Your task to perform on an android device: turn off picture-in-picture Image 0: 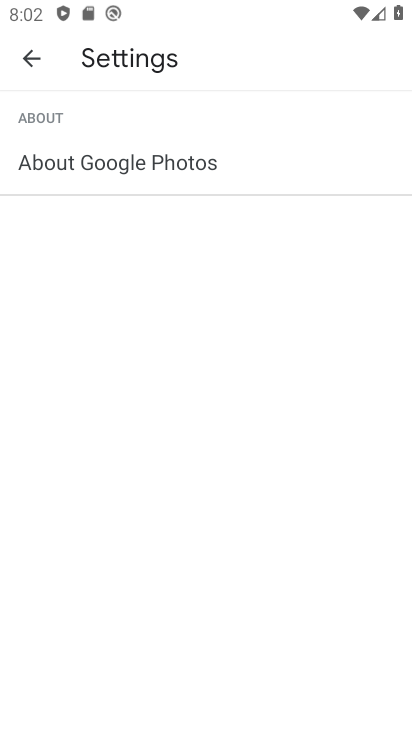
Step 0: press back button
Your task to perform on an android device: turn off picture-in-picture Image 1: 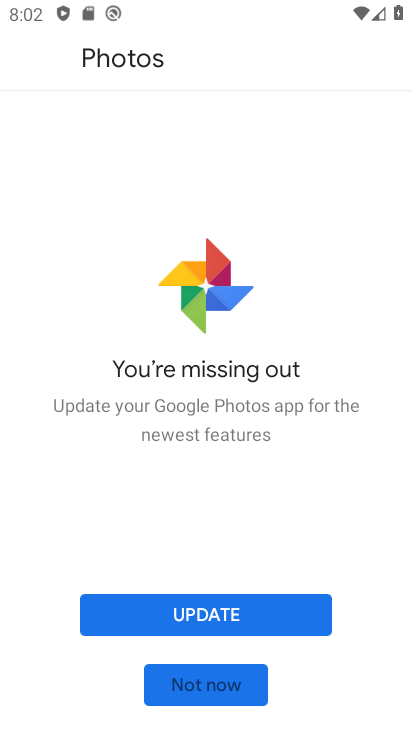
Step 1: click (196, 680)
Your task to perform on an android device: turn off picture-in-picture Image 2: 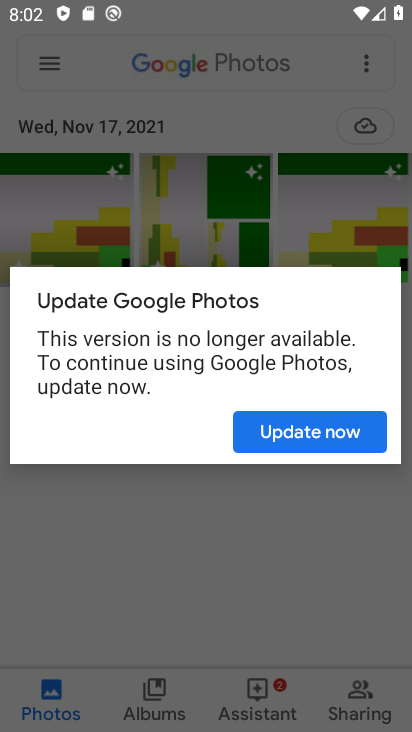
Step 2: press back button
Your task to perform on an android device: turn off picture-in-picture Image 3: 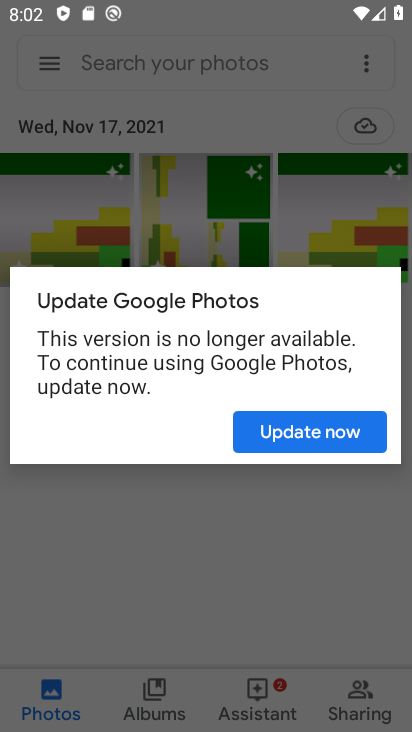
Step 3: press home button
Your task to perform on an android device: turn off picture-in-picture Image 4: 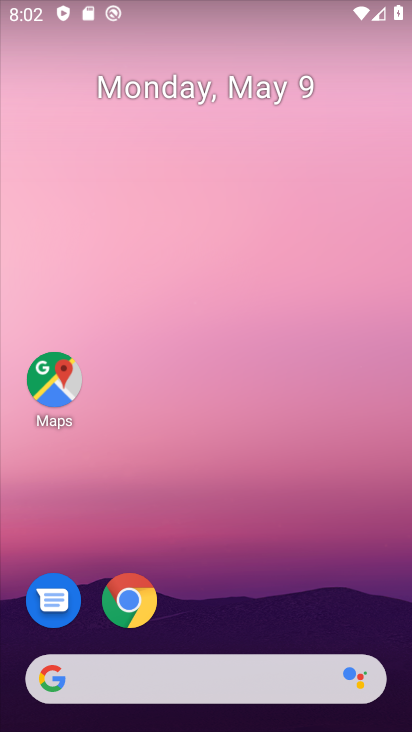
Step 4: drag from (191, 559) to (189, 40)
Your task to perform on an android device: turn off picture-in-picture Image 5: 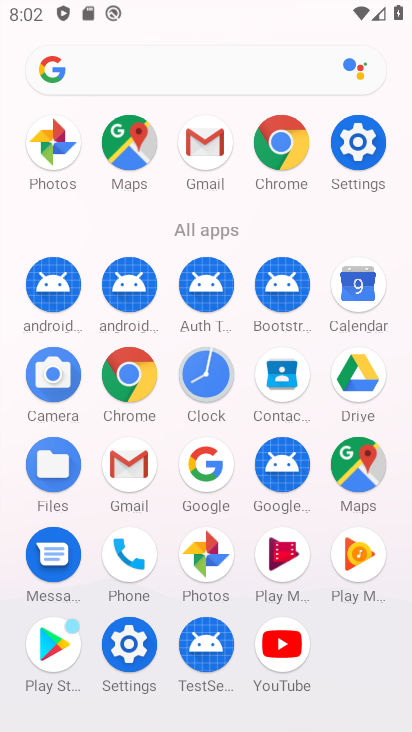
Step 5: drag from (11, 547) to (15, 303)
Your task to perform on an android device: turn off picture-in-picture Image 6: 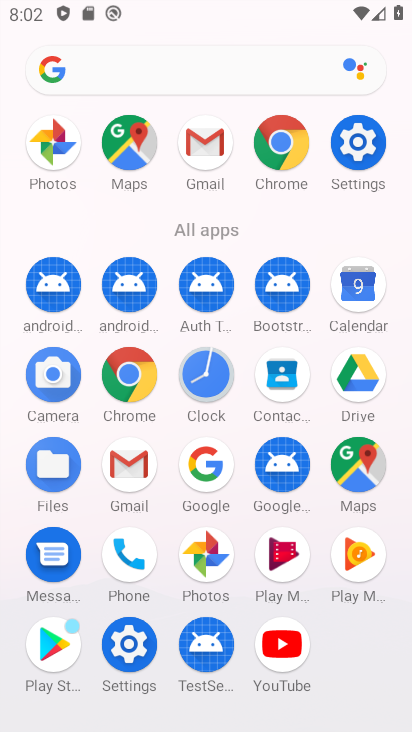
Step 6: click (358, 140)
Your task to perform on an android device: turn off picture-in-picture Image 7: 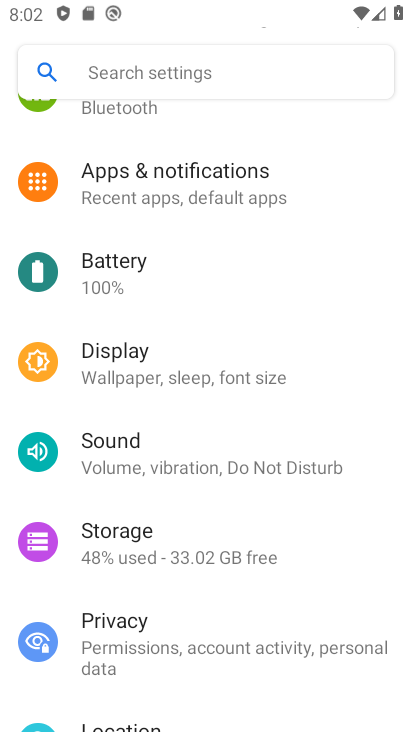
Step 7: click (252, 173)
Your task to perform on an android device: turn off picture-in-picture Image 8: 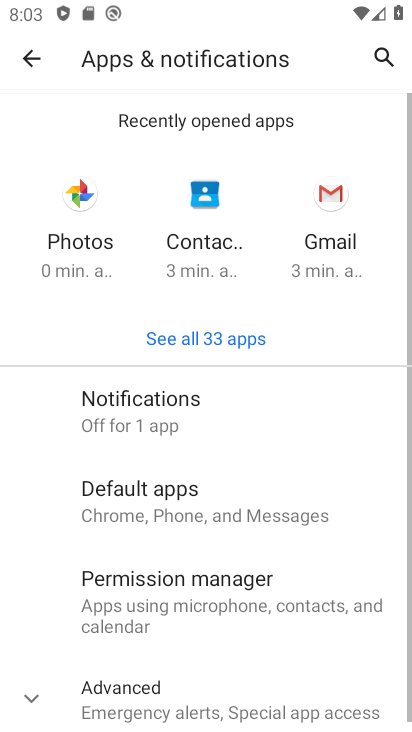
Step 8: click (26, 690)
Your task to perform on an android device: turn off picture-in-picture Image 9: 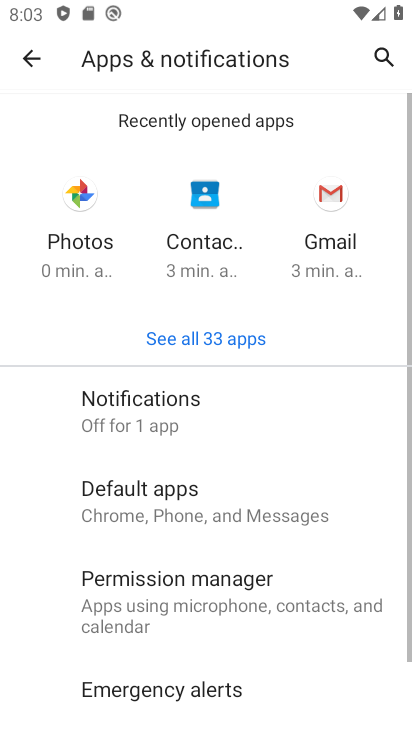
Step 9: drag from (224, 669) to (248, 172)
Your task to perform on an android device: turn off picture-in-picture Image 10: 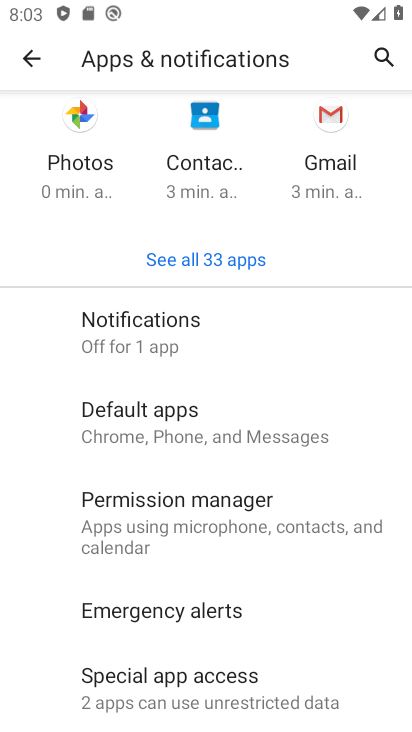
Step 10: click (184, 703)
Your task to perform on an android device: turn off picture-in-picture Image 11: 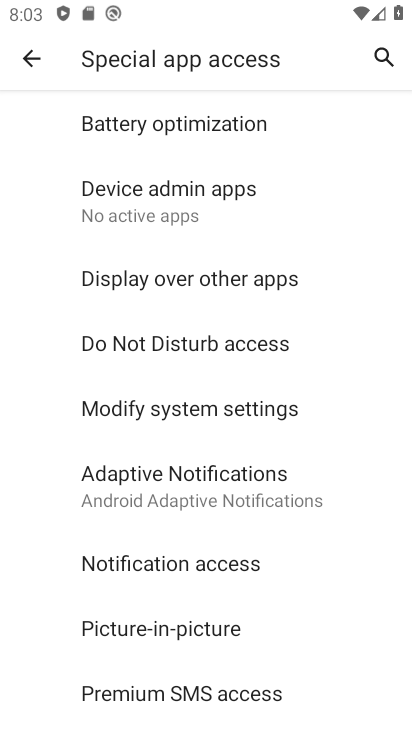
Step 11: click (223, 629)
Your task to perform on an android device: turn off picture-in-picture Image 12: 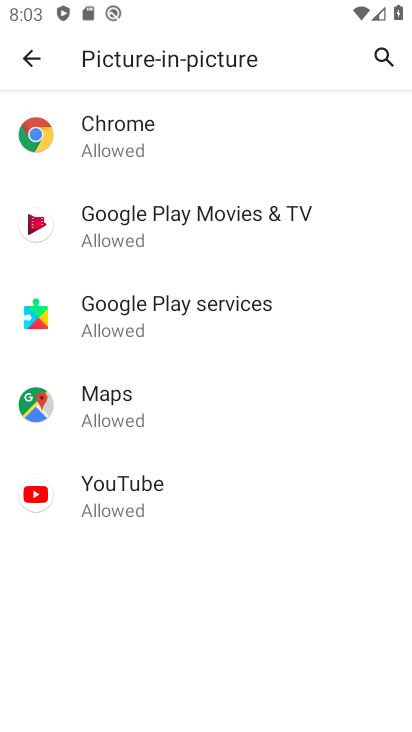
Step 12: click (173, 144)
Your task to perform on an android device: turn off picture-in-picture Image 13: 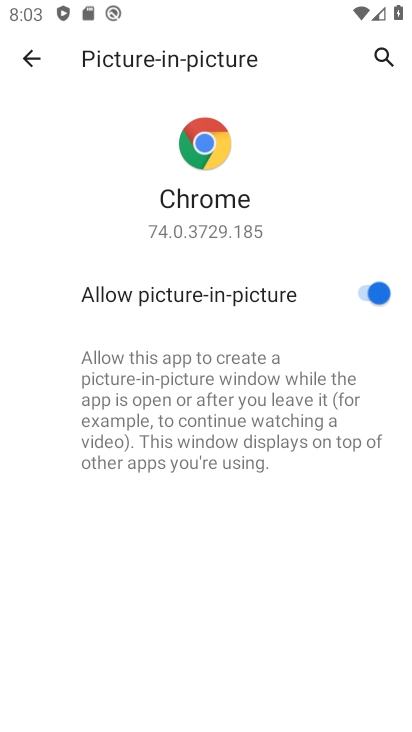
Step 13: click (359, 291)
Your task to perform on an android device: turn off picture-in-picture Image 14: 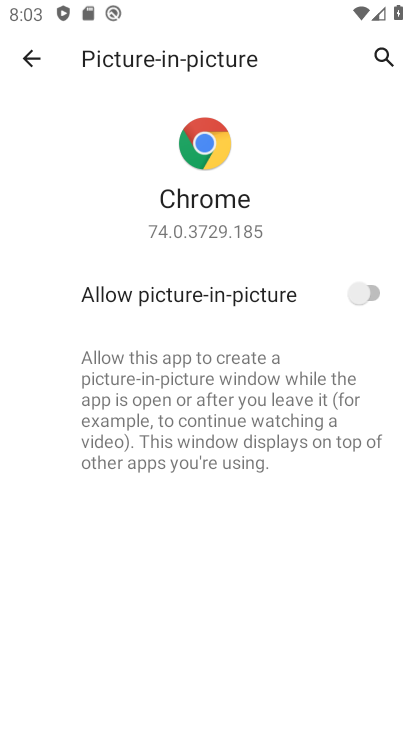
Step 14: click (37, 54)
Your task to perform on an android device: turn off picture-in-picture Image 15: 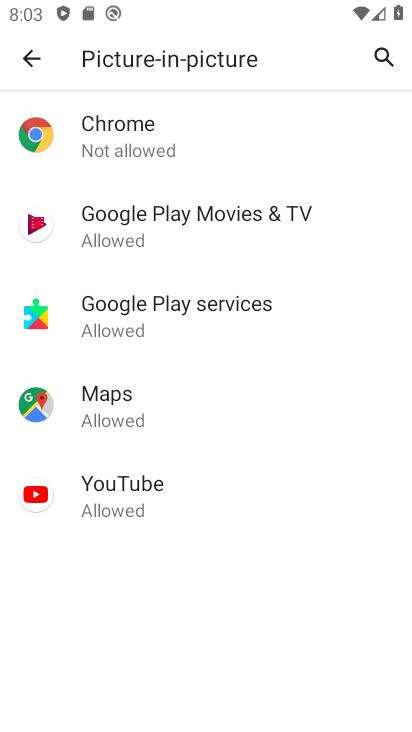
Step 15: click (149, 234)
Your task to perform on an android device: turn off picture-in-picture Image 16: 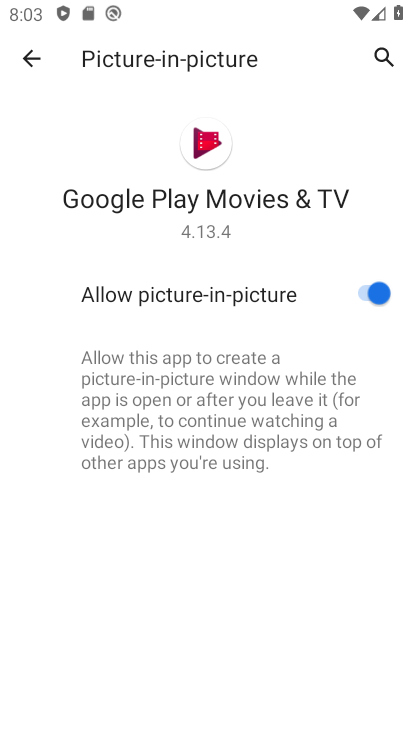
Step 16: click (366, 291)
Your task to perform on an android device: turn off picture-in-picture Image 17: 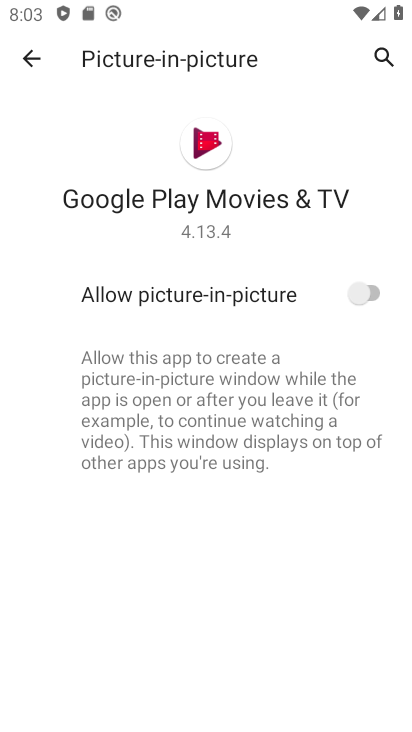
Step 17: click (32, 53)
Your task to perform on an android device: turn off picture-in-picture Image 18: 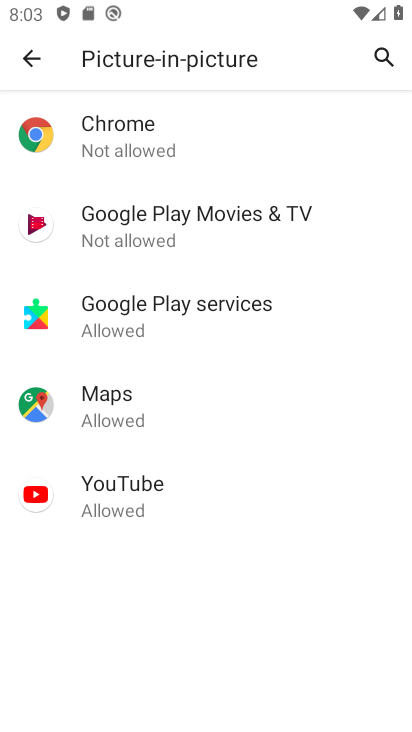
Step 18: click (148, 322)
Your task to perform on an android device: turn off picture-in-picture Image 19: 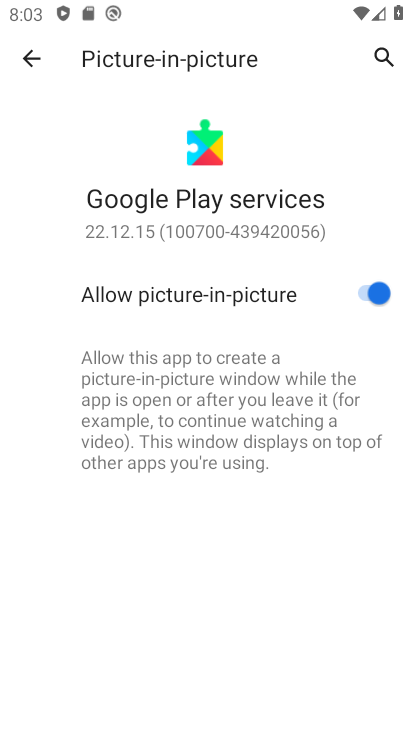
Step 19: click (373, 294)
Your task to perform on an android device: turn off picture-in-picture Image 20: 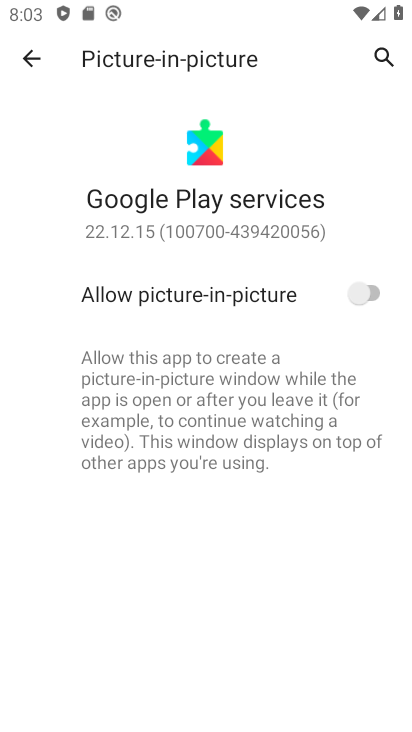
Step 20: click (29, 54)
Your task to perform on an android device: turn off picture-in-picture Image 21: 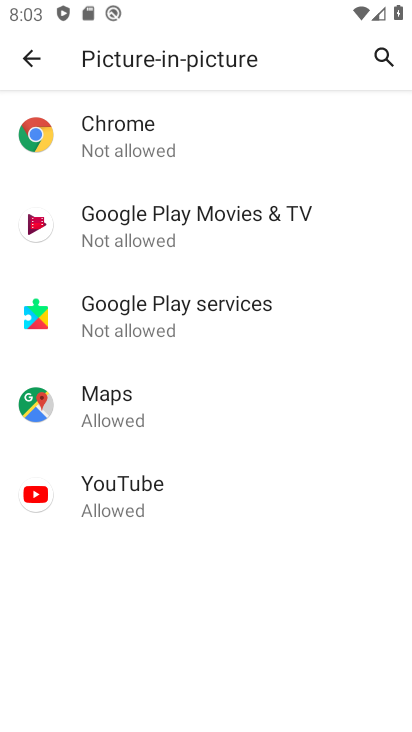
Step 21: click (135, 406)
Your task to perform on an android device: turn off picture-in-picture Image 22: 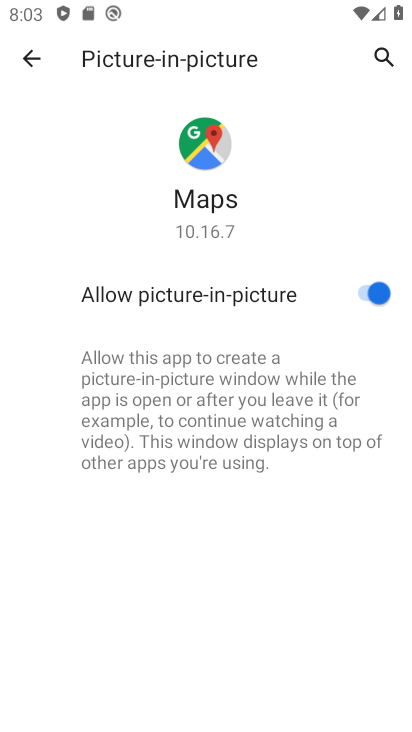
Step 22: click (360, 293)
Your task to perform on an android device: turn off picture-in-picture Image 23: 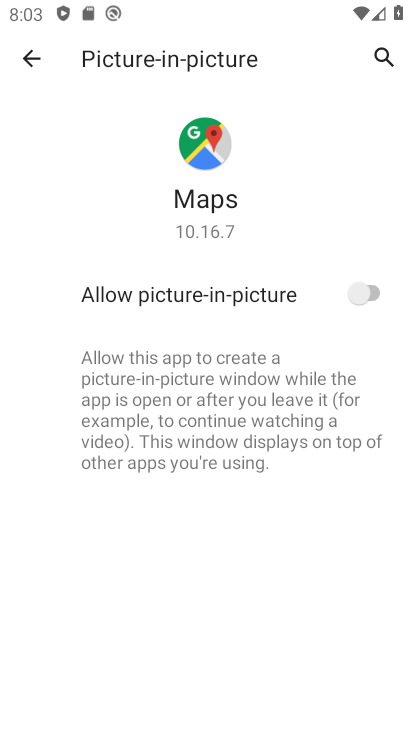
Step 23: click (23, 53)
Your task to perform on an android device: turn off picture-in-picture Image 24: 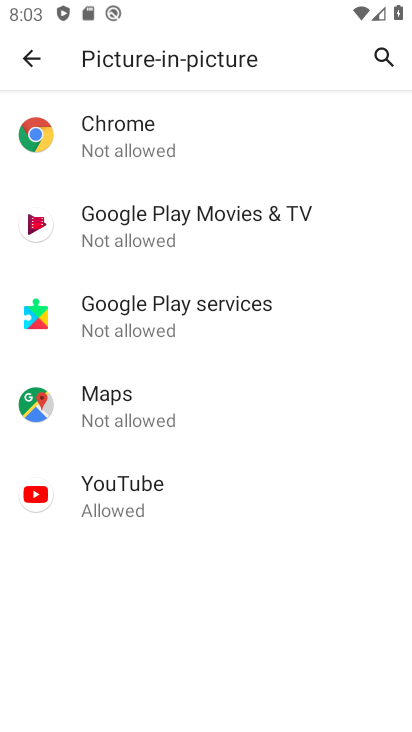
Step 24: click (167, 489)
Your task to perform on an android device: turn off picture-in-picture Image 25: 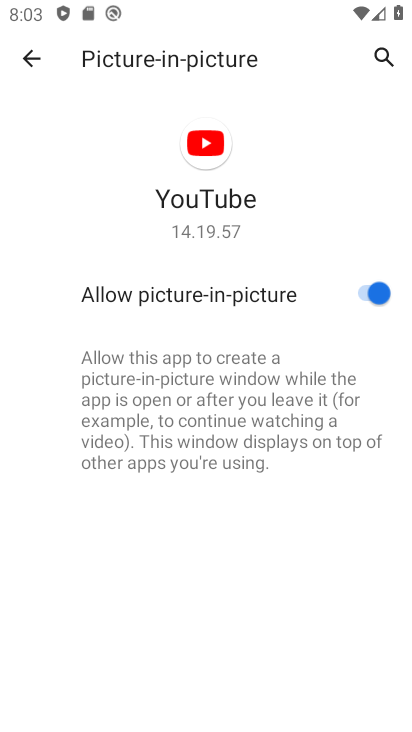
Step 25: click (375, 281)
Your task to perform on an android device: turn off picture-in-picture Image 26: 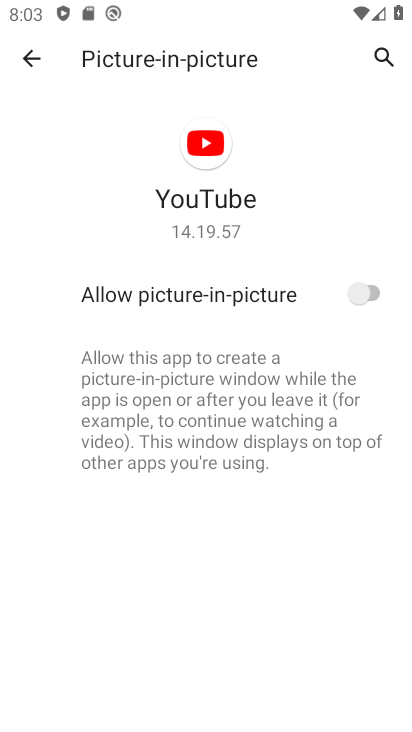
Step 26: click (22, 49)
Your task to perform on an android device: turn off picture-in-picture Image 27: 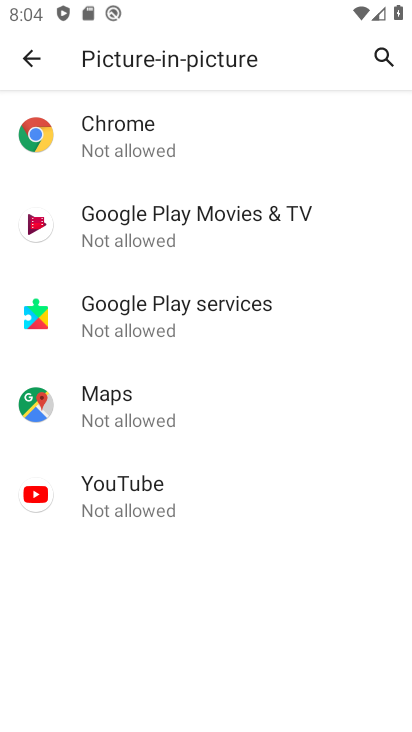
Step 27: task complete